Your task to perform on an android device: Search for the best rated mechanical keyboard on Amazon. Image 0: 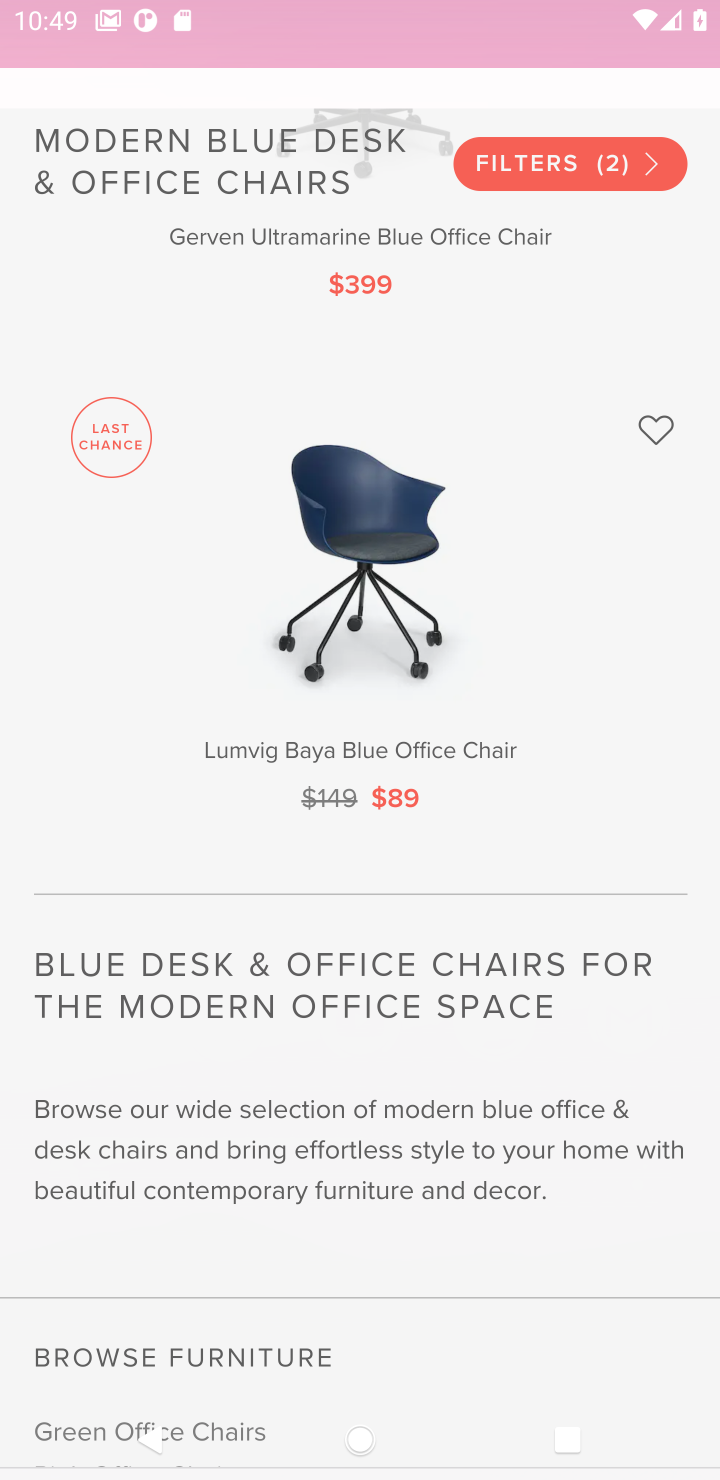
Step 0: press home button
Your task to perform on an android device: Search for the best rated mechanical keyboard on Amazon. Image 1: 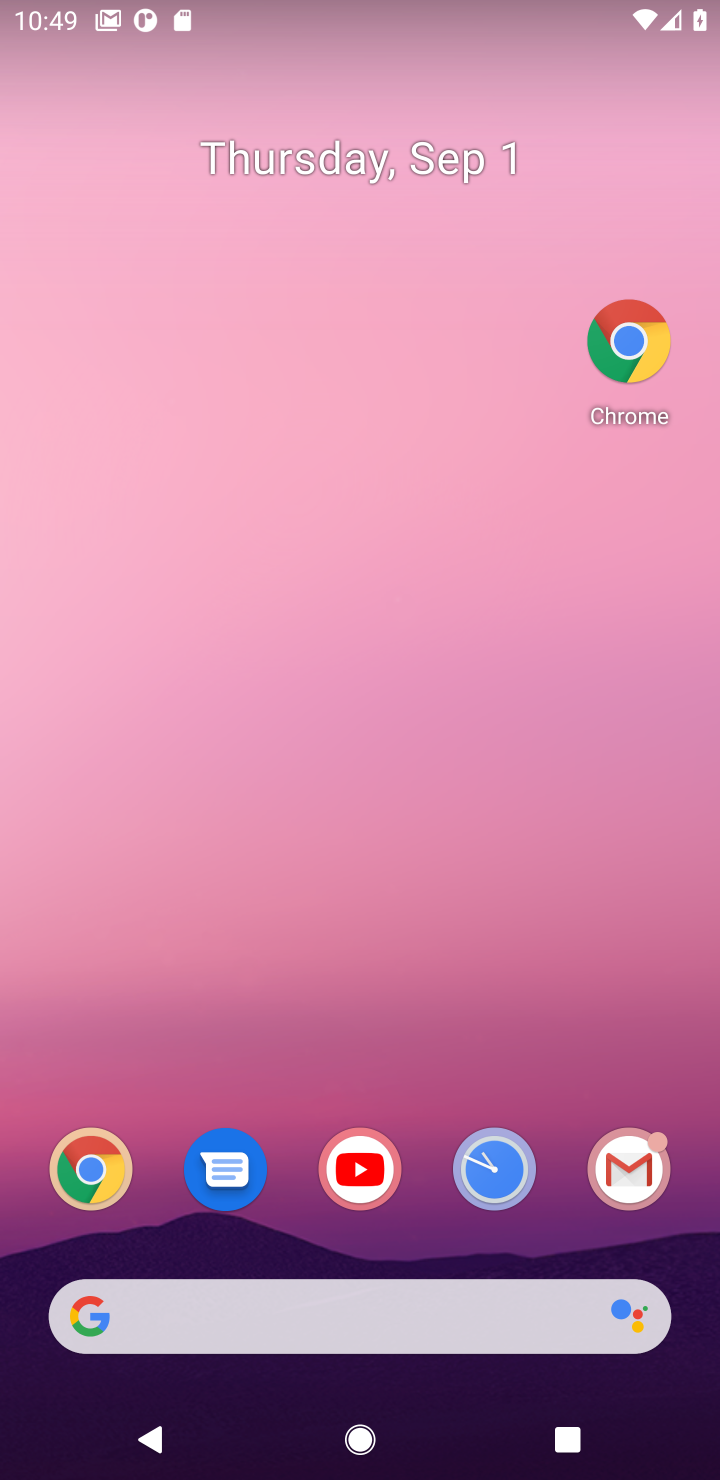
Step 1: drag from (419, 388) to (0, 439)
Your task to perform on an android device: Search for the best rated mechanical keyboard on Amazon. Image 2: 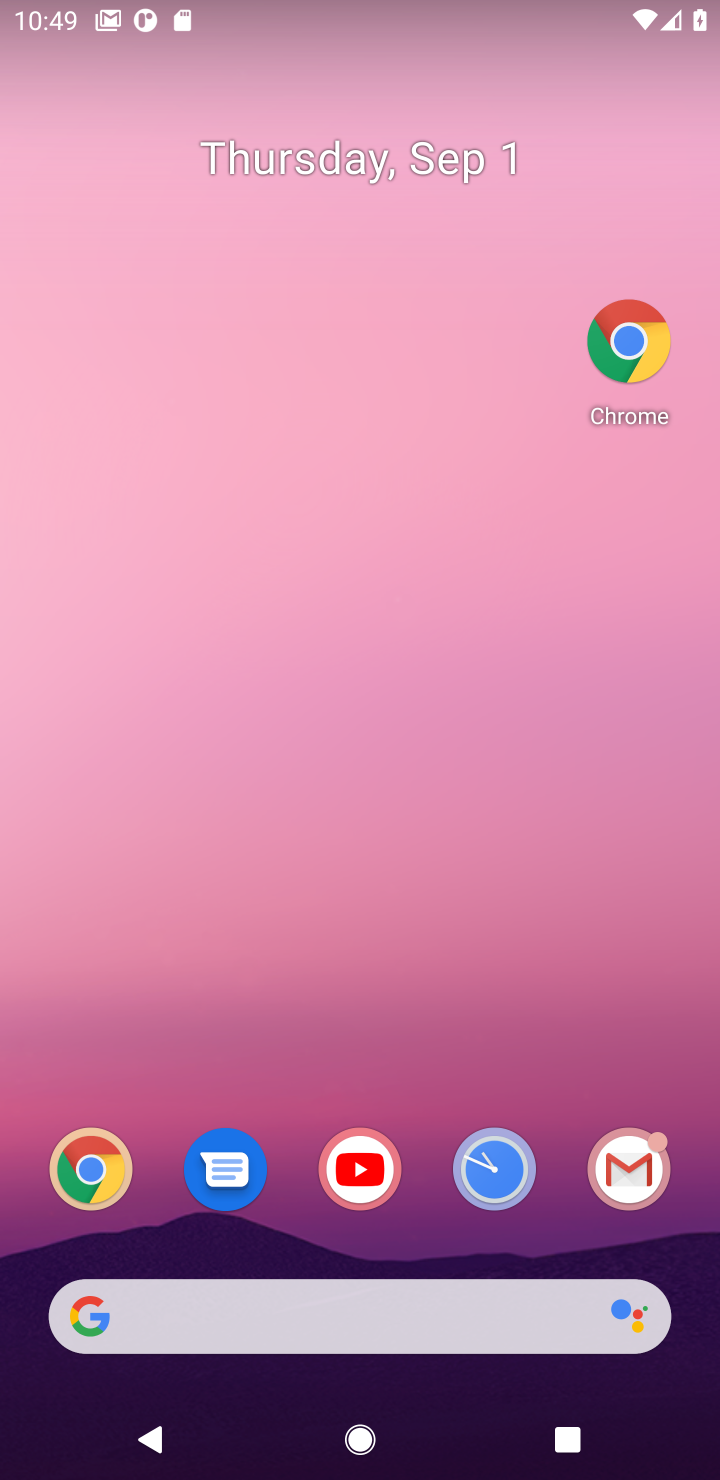
Step 2: drag from (423, 723) to (407, 75)
Your task to perform on an android device: Search for the best rated mechanical keyboard on Amazon. Image 3: 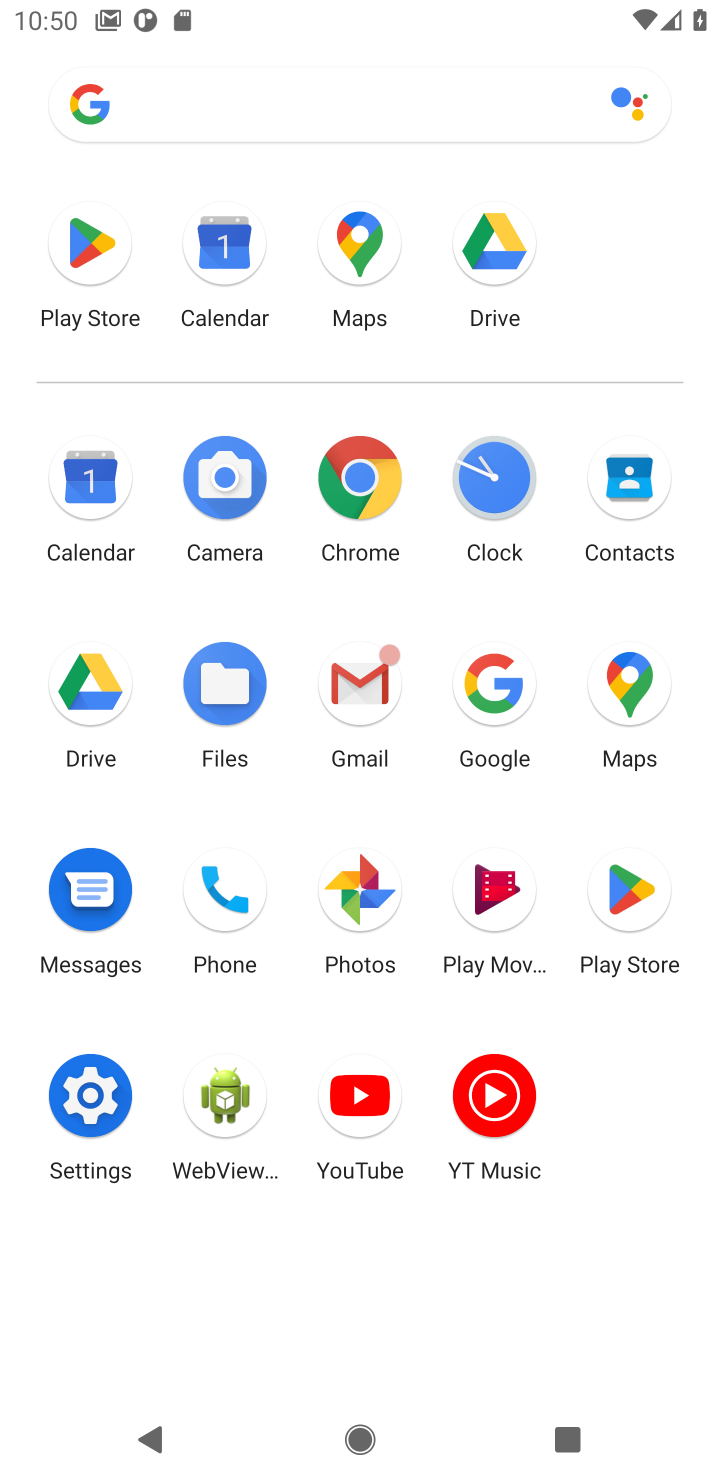
Step 3: click (364, 477)
Your task to perform on an android device: Search for the best rated mechanical keyboard on Amazon. Image 4: 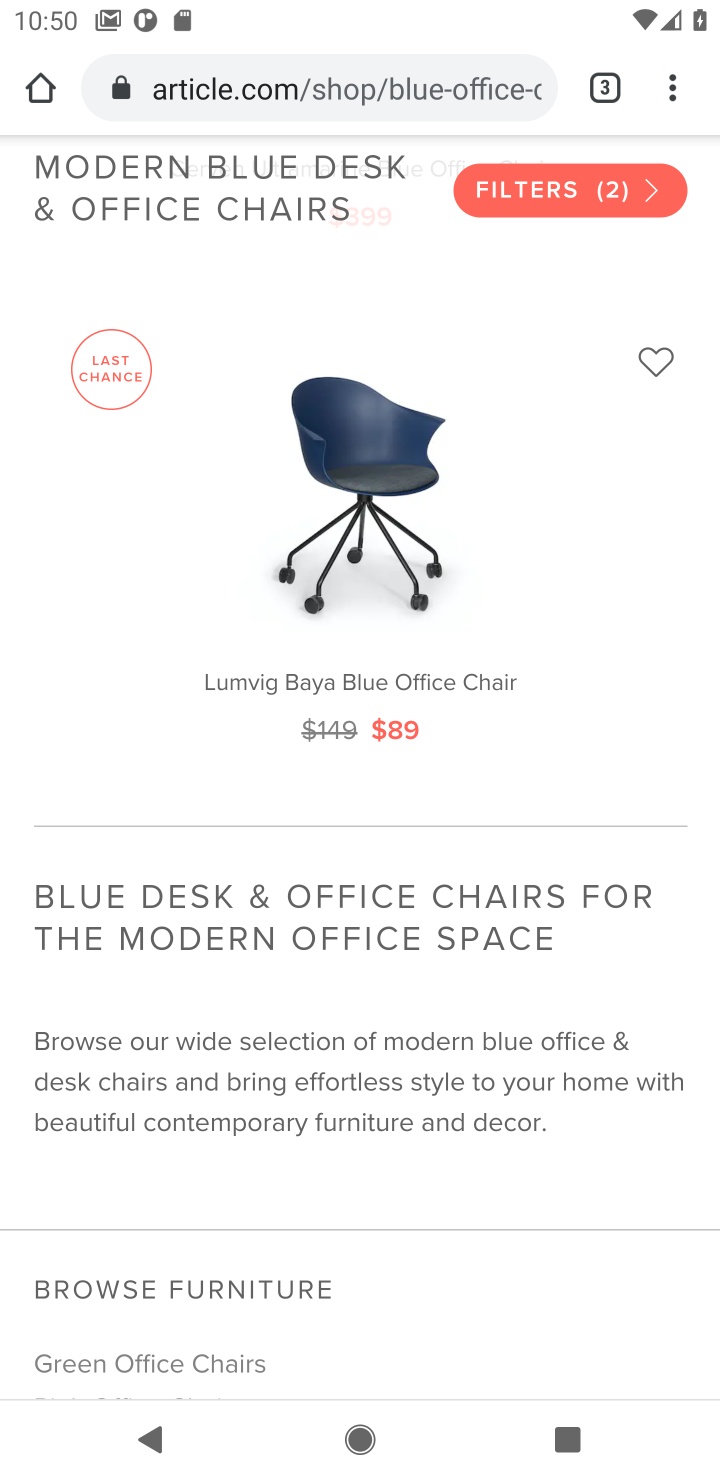
Step 4: click (595, 83)
Your task to perform on an android device: Search for the best rated mechanical keyboard on Amazon. Image 5: 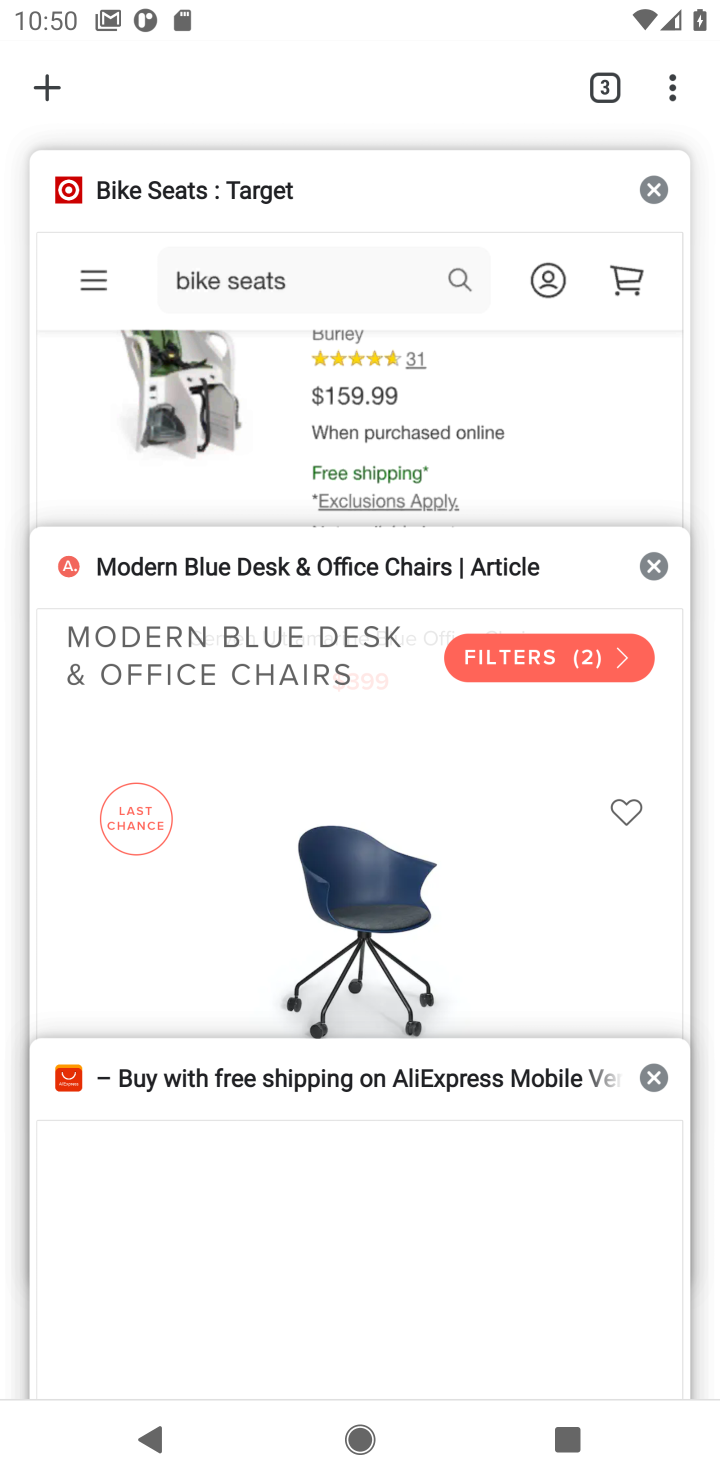
Step 5: click (46, 90)
Your task to perform on an android device: Search for the best rated mechanical keyboard on Amazon. Image 6: 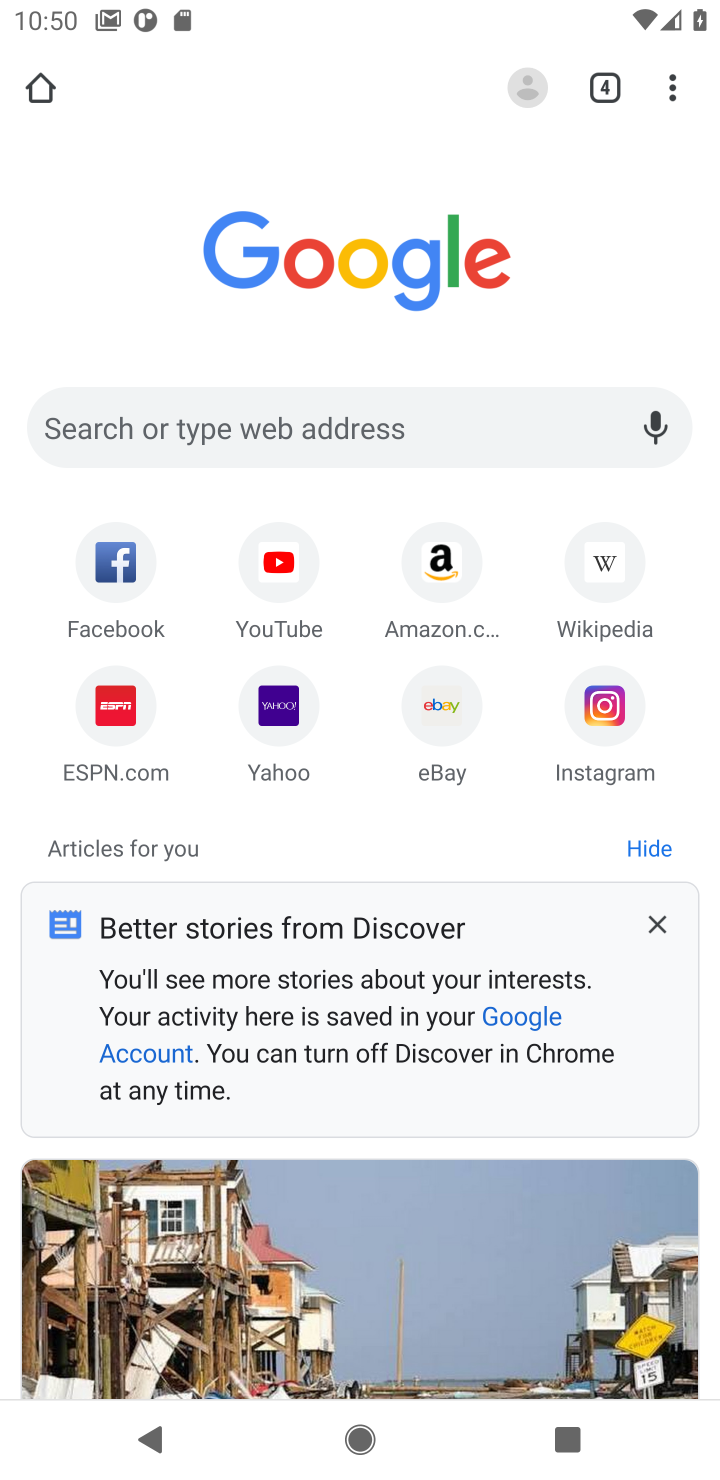
Step 6: click (202, 421)
Your task to perform on an android device: Search for the best rated mechanical keyboard on Amazon. Image 7: 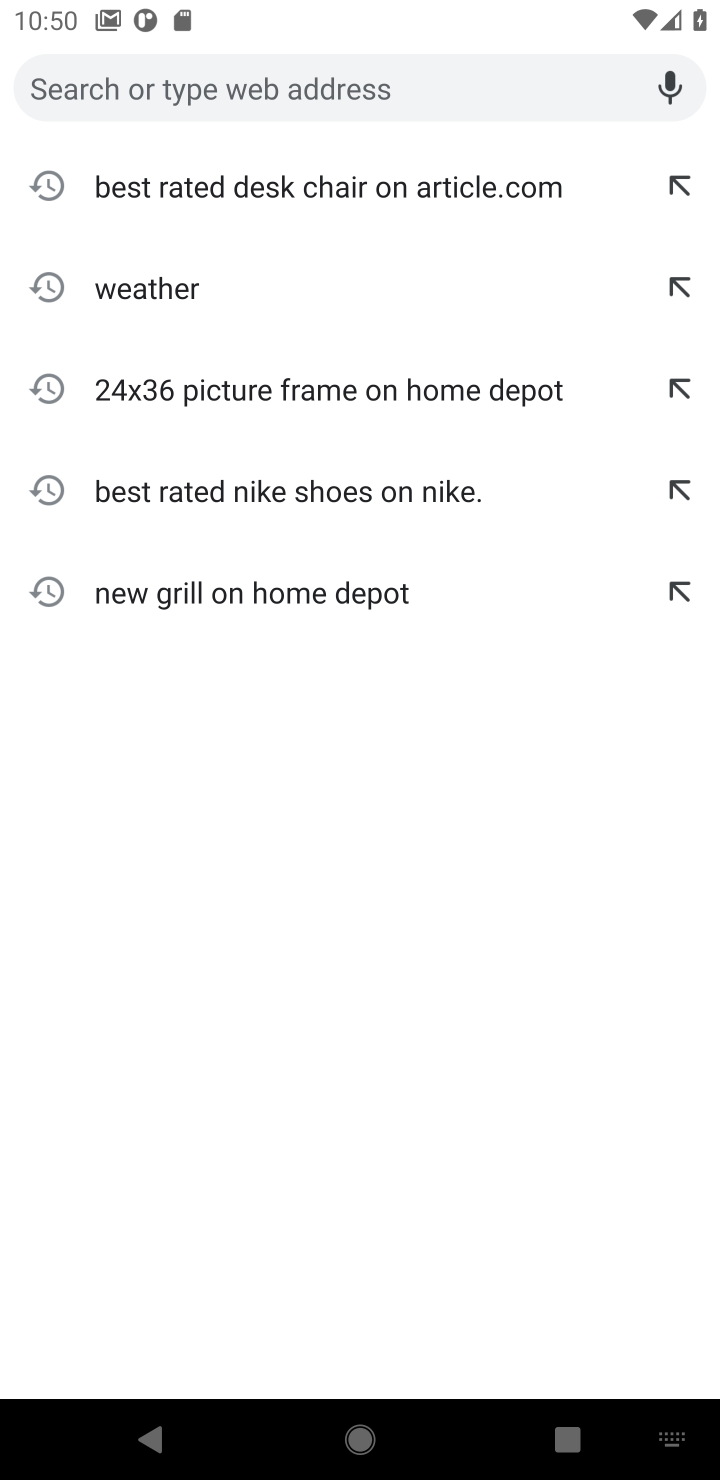
Step 7: type "best rated mechanical keyboard on Amazon"
Your task to perform on an android device: Search for the best rated mechanical keyboard on Amazon. Image 8: 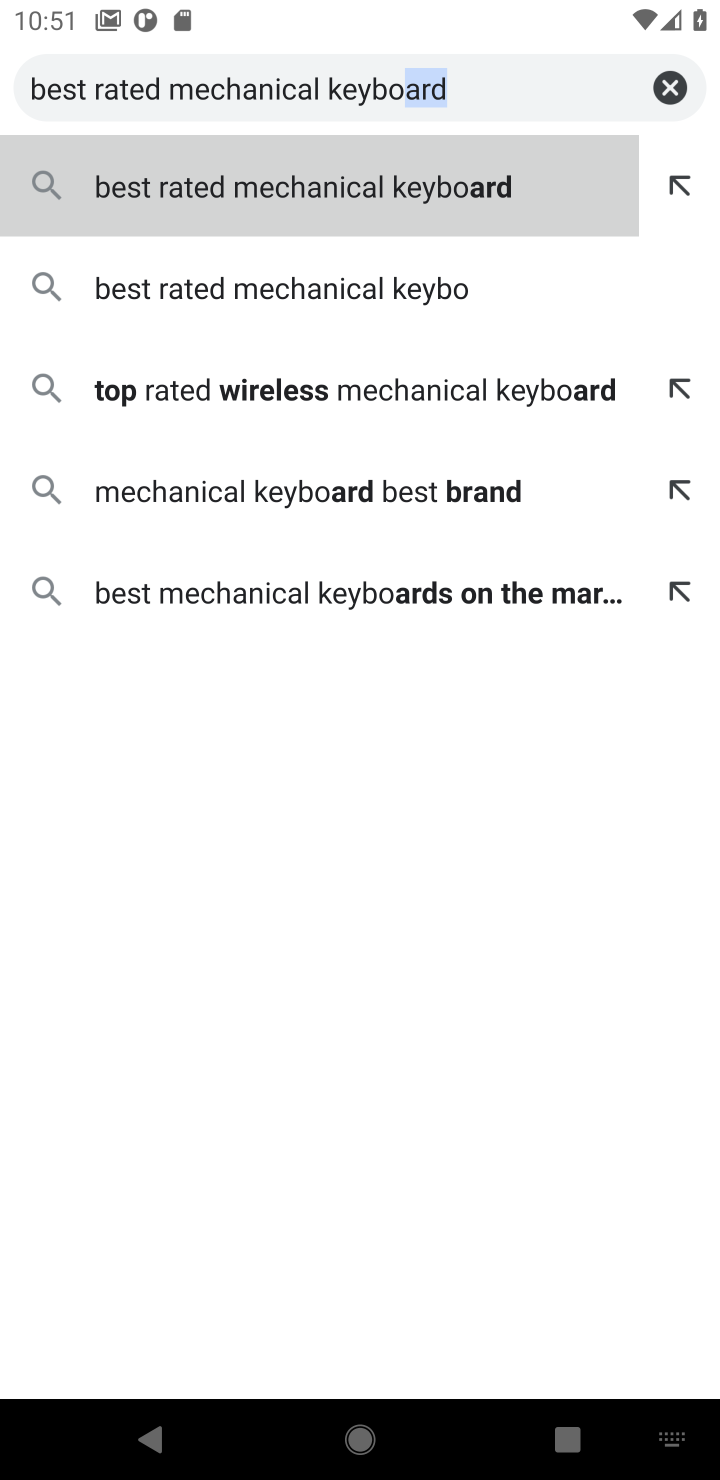
Step 8: click (504, 78)
Your task to perform on an android device: Search for the best rated mechanical keyboard on Amazon. Image 9: 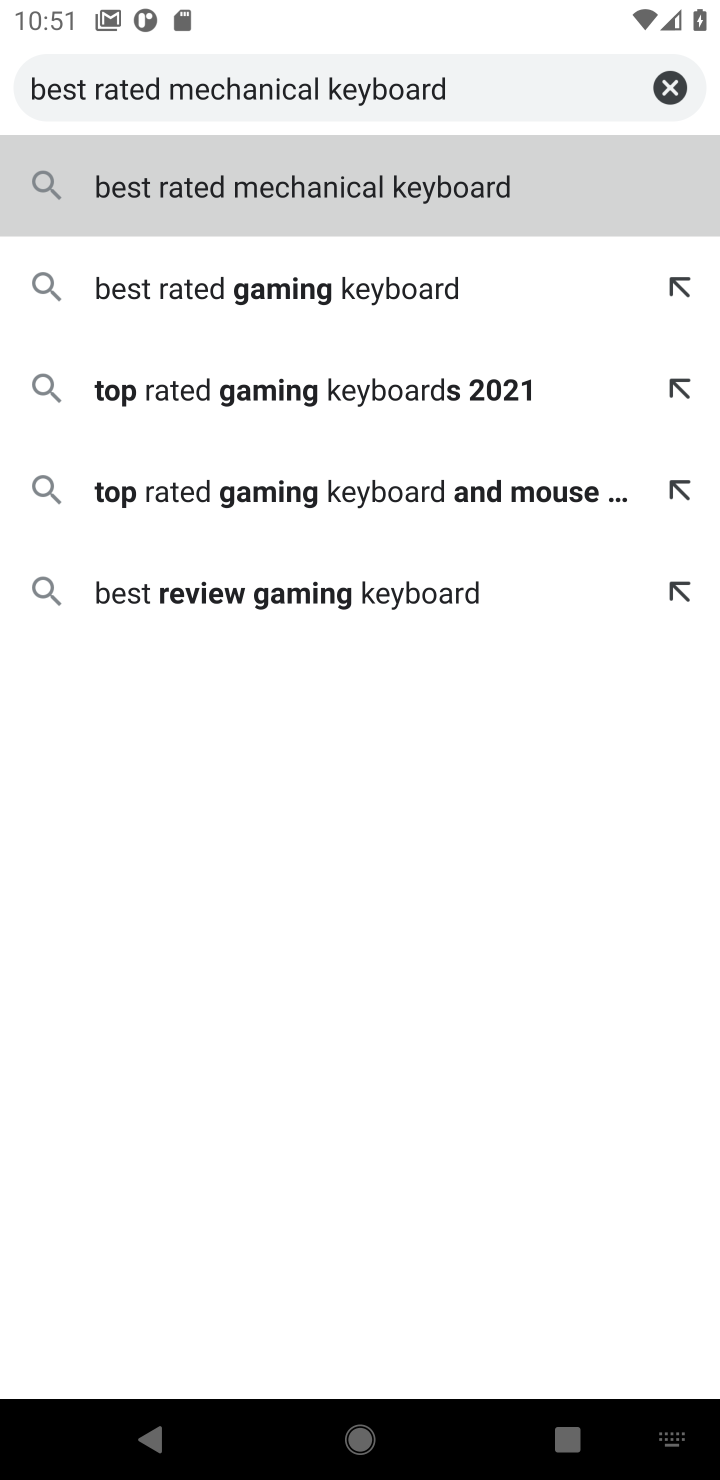
Step 9: type " on Amazon"
Your task to perform on an android device: Search for the best rated mechanical keyboard on Amazon. Image 10: 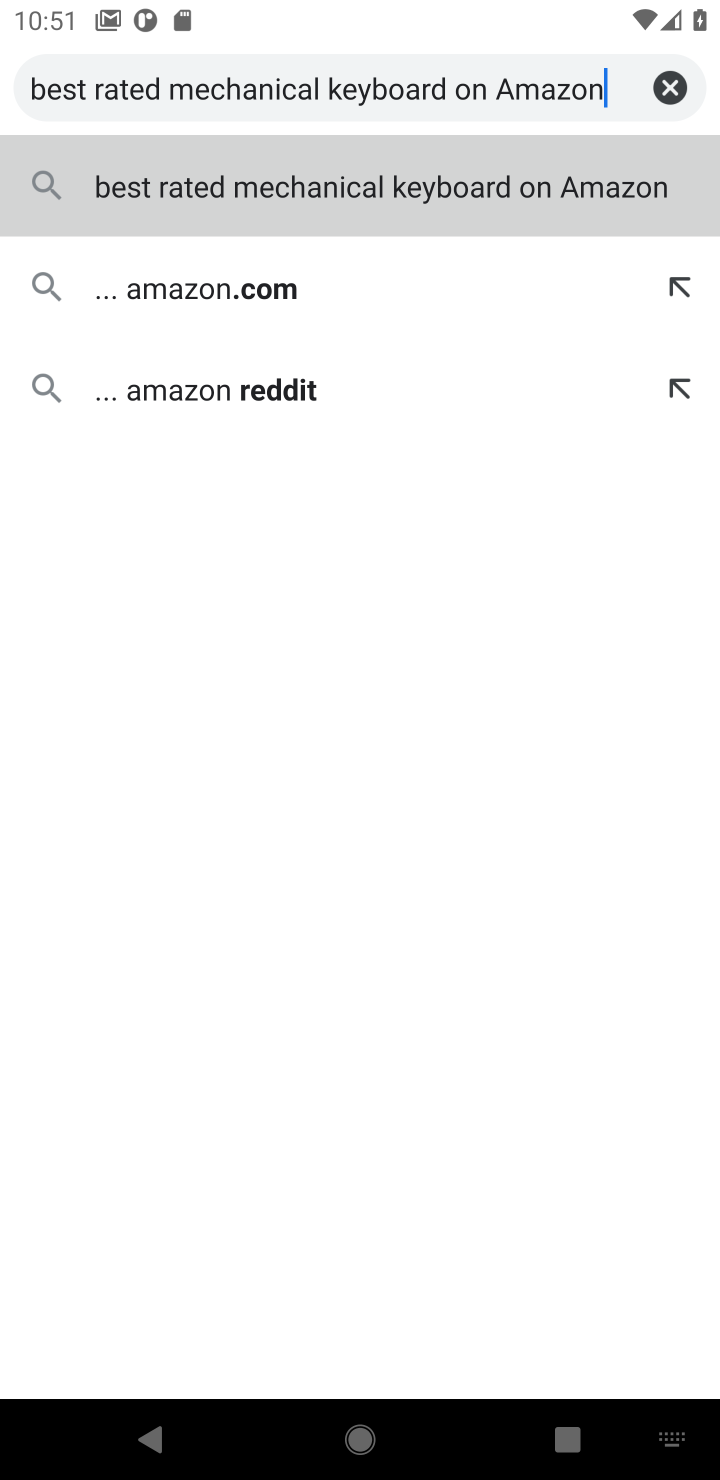
Step 10: click (213, 195)
Your task to perform on an android device: Search for the best rated mechanical keyboard on Amazon. Image 11: 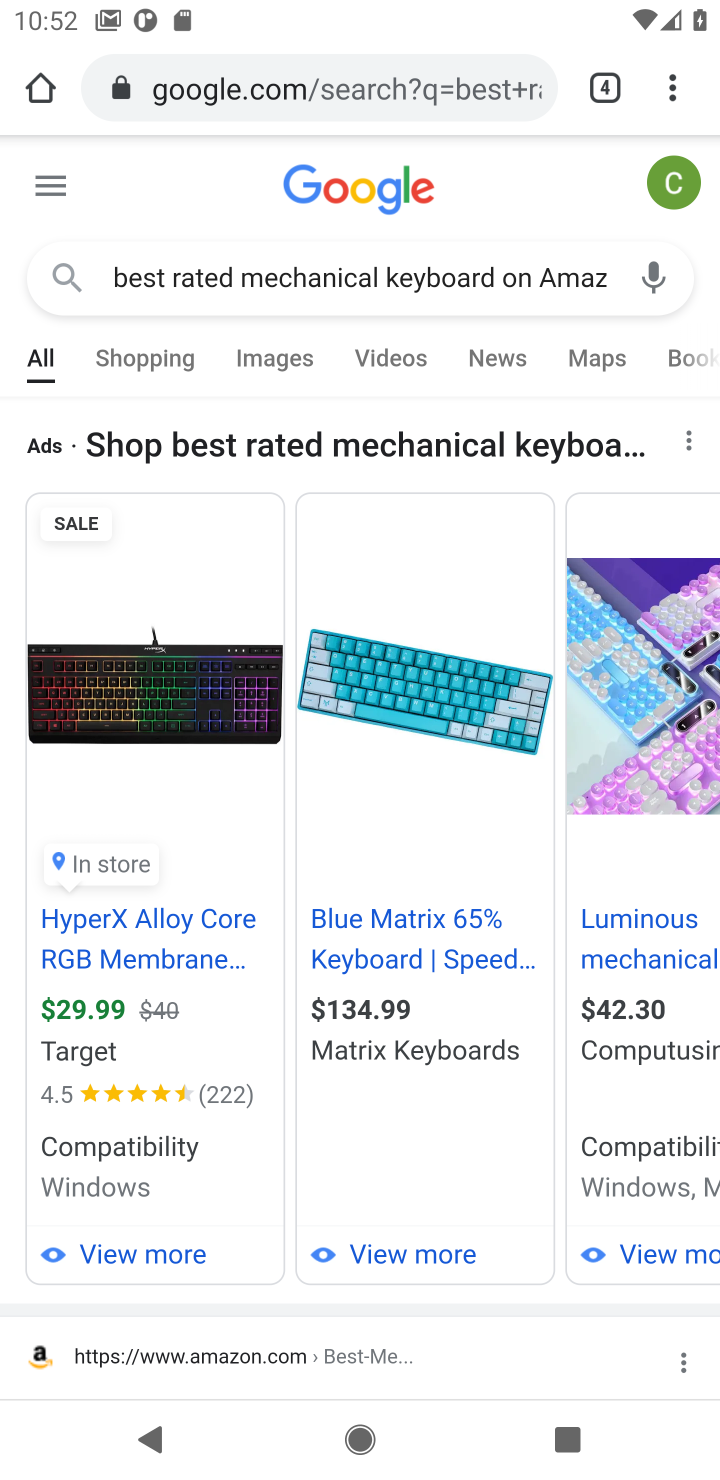
Step 11: drag from (328, 1191) to (233, 235)
Your task to perform on an android device: Search for the best rated mechanical keyboard on Amazon. Image 12: 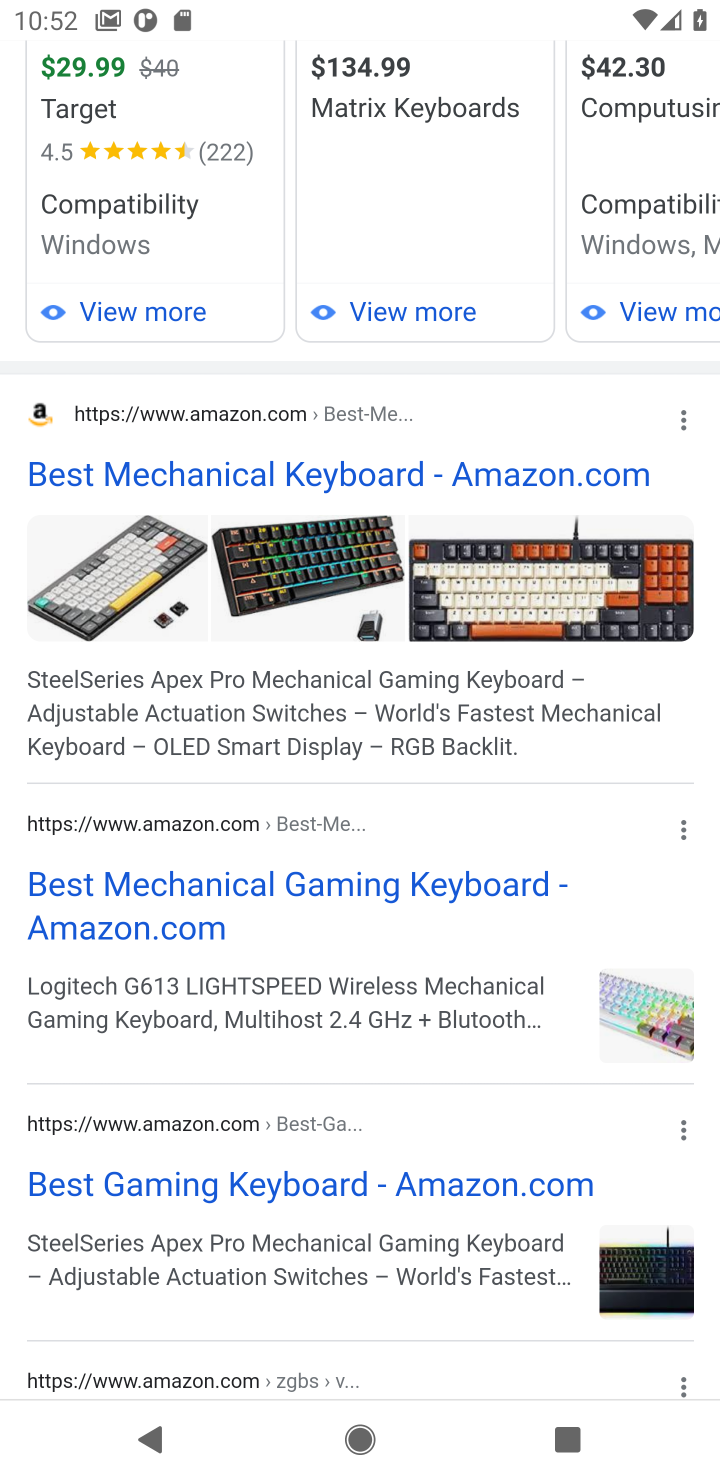
Step 12: click (194, 898)
Your task to perform on an android device: Search for the best rated mechanical keyboard on Amazon. Image 13: 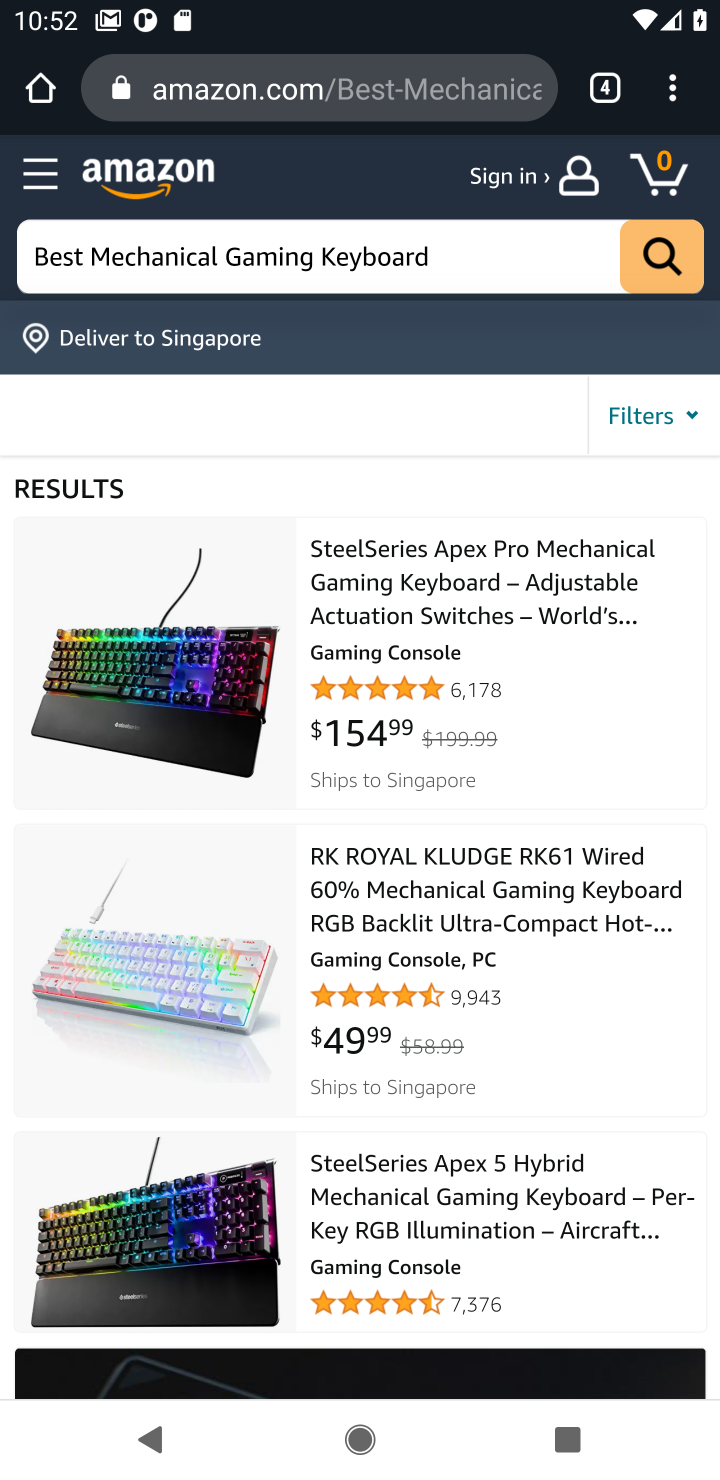
Step 13: drag from (299, 685) to (350, 465)
Your task to perform on an android device: Search for the best rated mechanical keyboard on Amazon. Image 14: 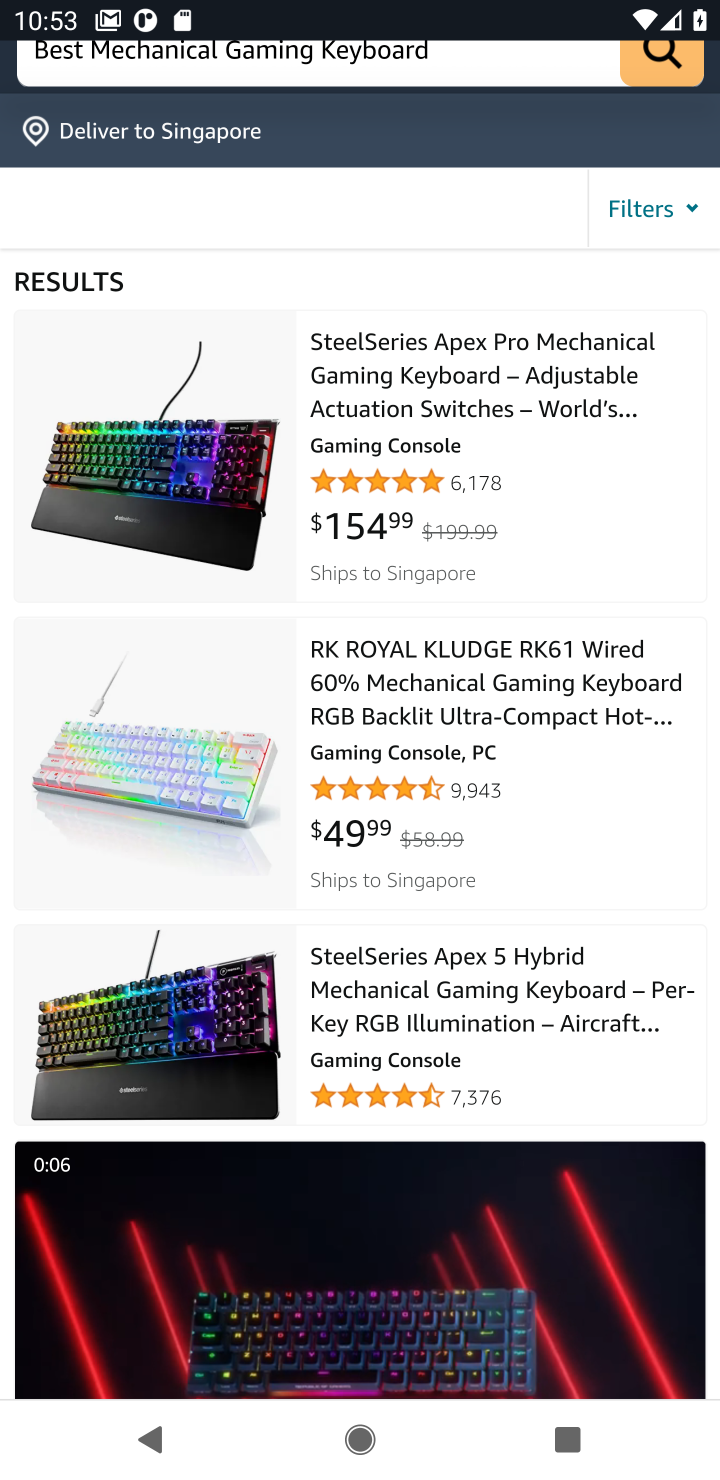
Step 14: drag from (314, 851) to (366, 174)
Your task to perform on an android device: Search for the best rated mechanical keyboard on Amazon. Image 15: 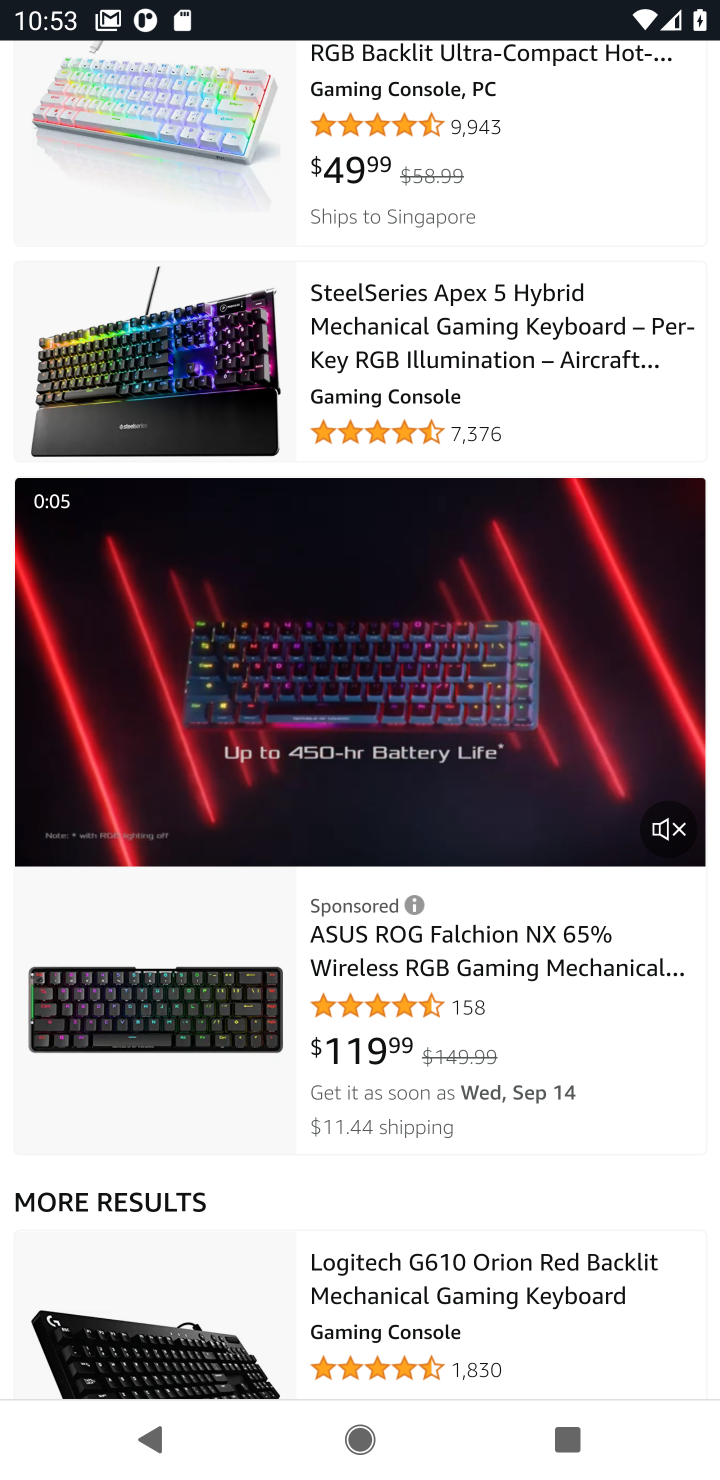
Step 15: drag from (353, 1191) to (382, 318)
Your task to perform on an android device: Search for the best rated mechanical keyboard on Amazon. Image 16: 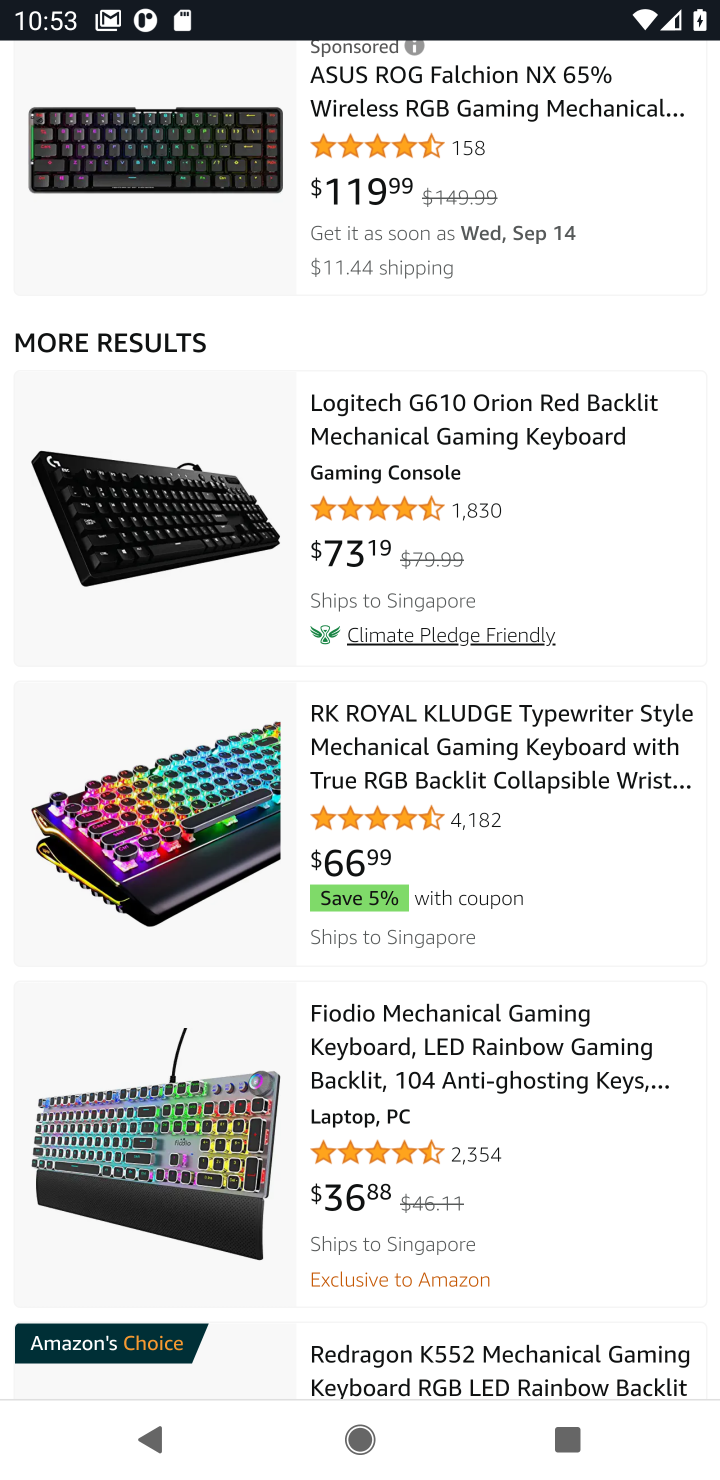
Step 16: drag from (325, 1190) to (294, 290)
Your task to perform on an android device: Search for the best rated mechanical keyboard on Amazon. Image 17: 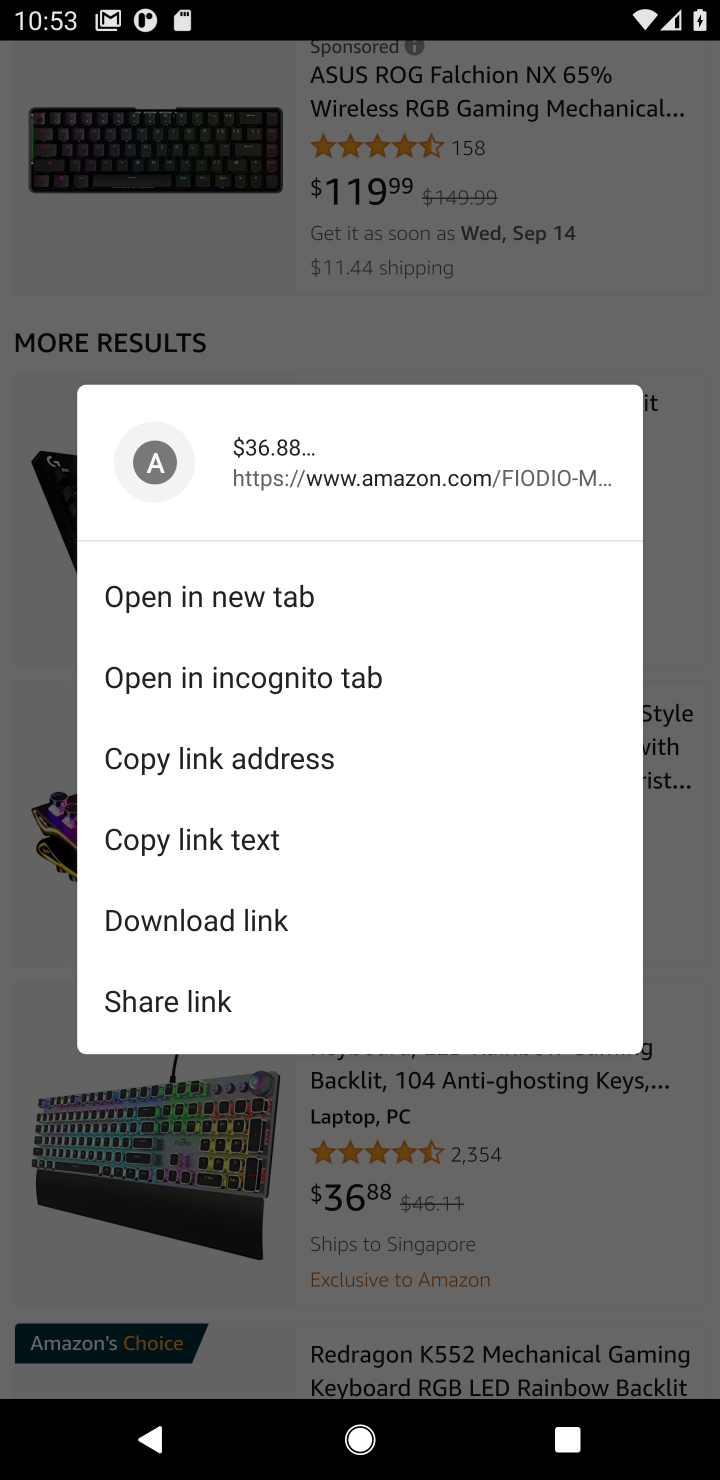
Step 17: click (300, 1297)
Your task to perform on an android device: Search for the best rated mechanical keyboard on Amazon. Image 18: 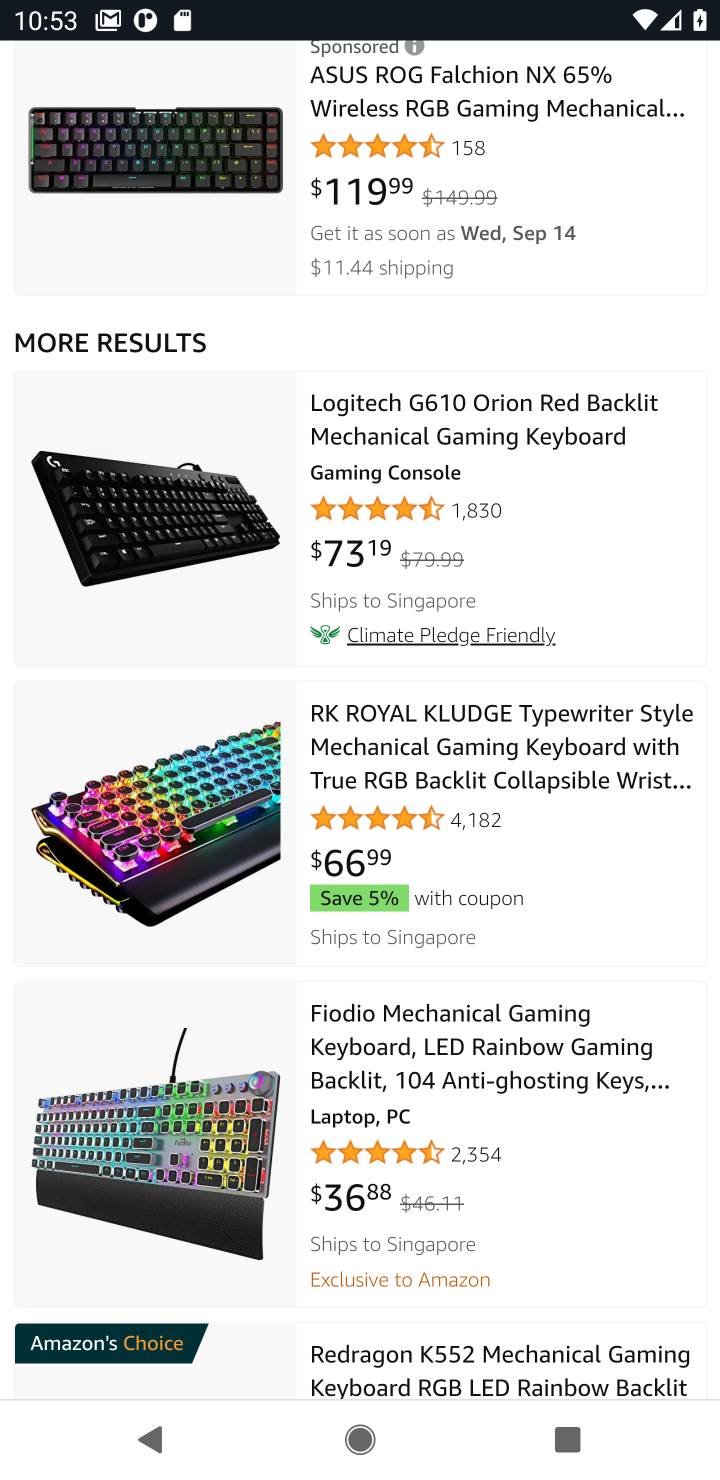
Step 18: task complete